Your task to perform on an android device: empty trash in google photos Image 0: 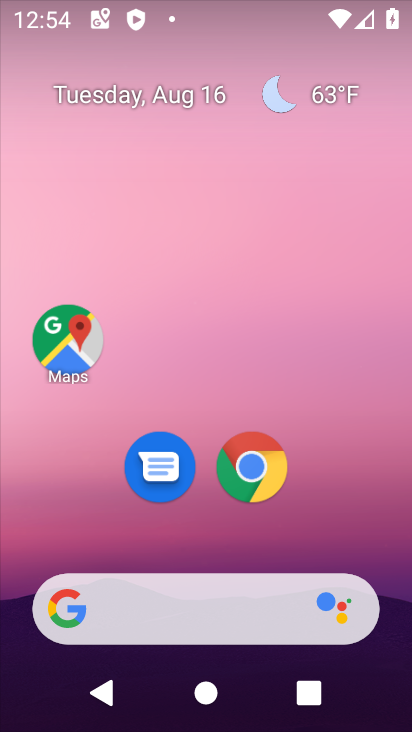
Step 0: press home button
Your task to perform on an android device: empty trash in google photos Image 1: 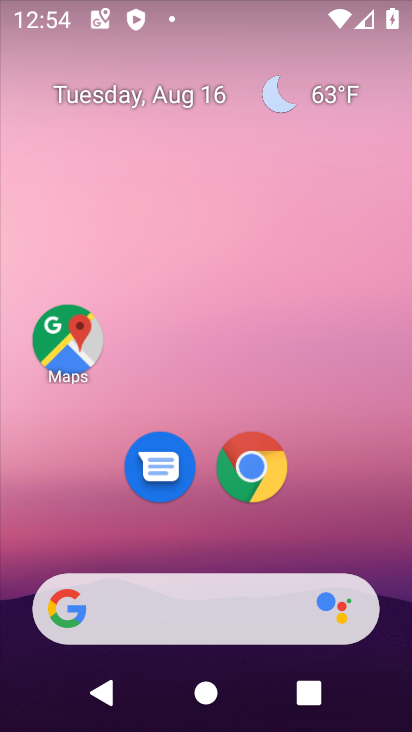
Step 1: drag from (365, 475) to (373, 78)
Your task to perform on an android device: empty trash in google photos Image 2: 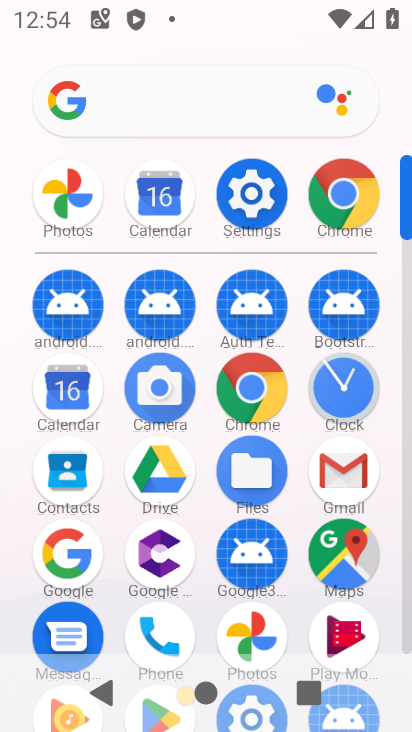
Step 2: click (253, 644)
Your task to perform on an android device: empty trash in google photos Image 3: 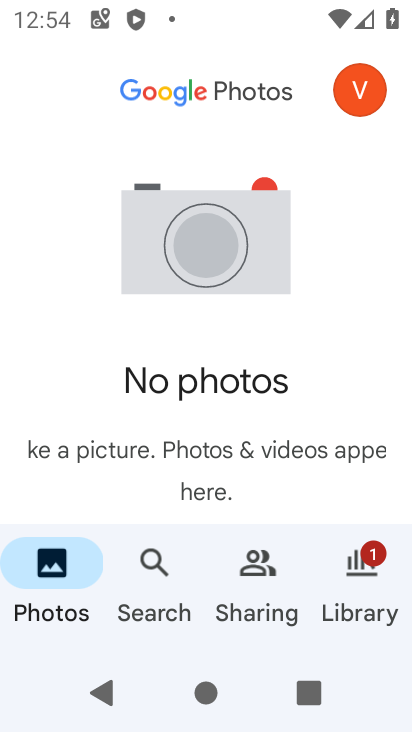
Step 3: click (368, 567)
Your task to perform on an android device: empty trash in google photos Image 4: 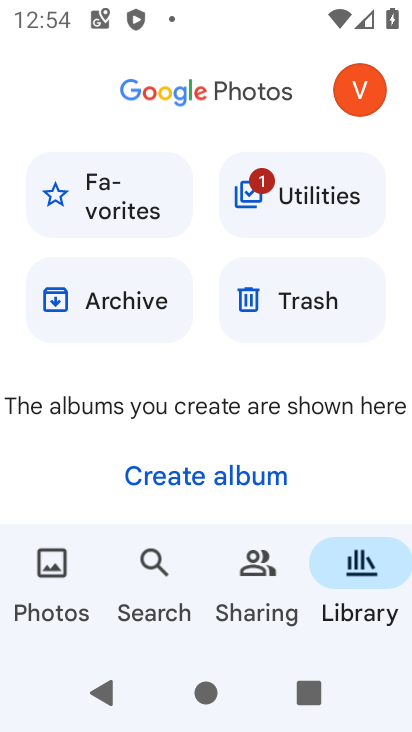
Step 4: click (307, 304)
Your task to perform on an android device: empty trash in google photos Image 5: 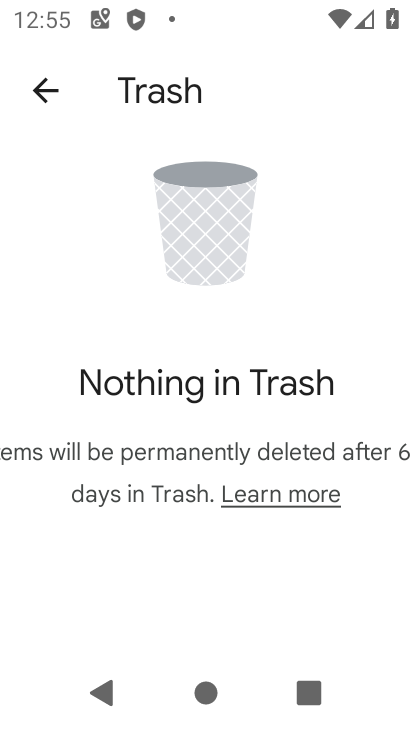
Step 5: task complete